Your task to perform on an android device: Go to display settings Image 0: 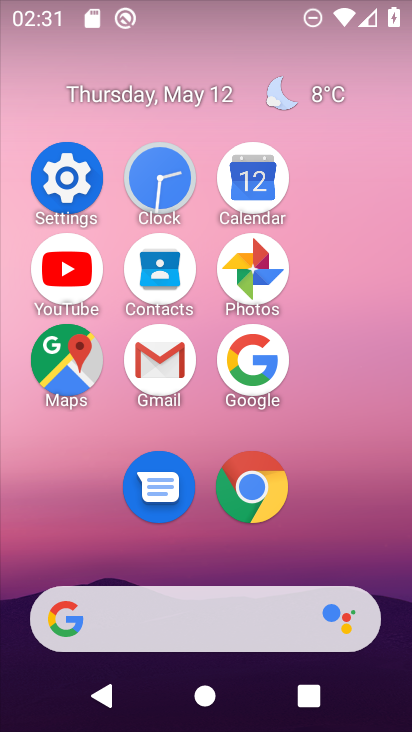
Step 0: click (68, 169)
Your task to perform on an android device: Go to display settings Image 1: 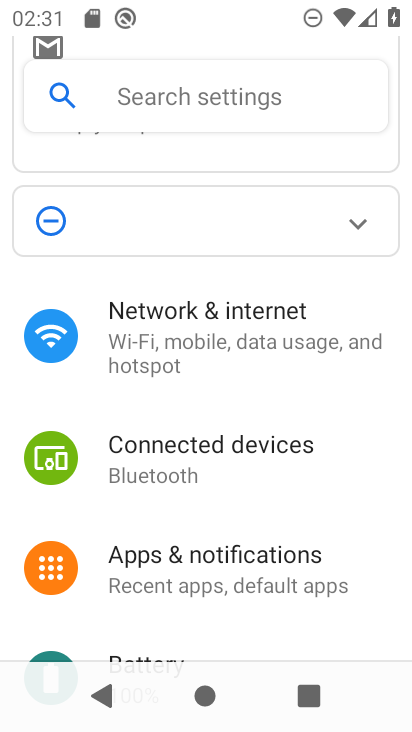
Step 1: drag from (208, 626) to (229, 245)
Your task to perform on an android device: Go to display settings Image 2: 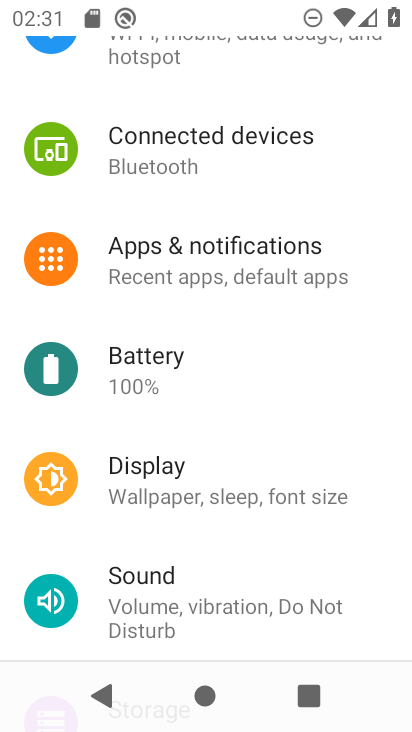
Step 2: click (213, 481)
Your task to perform on an android device: Go to display settings Image 3: 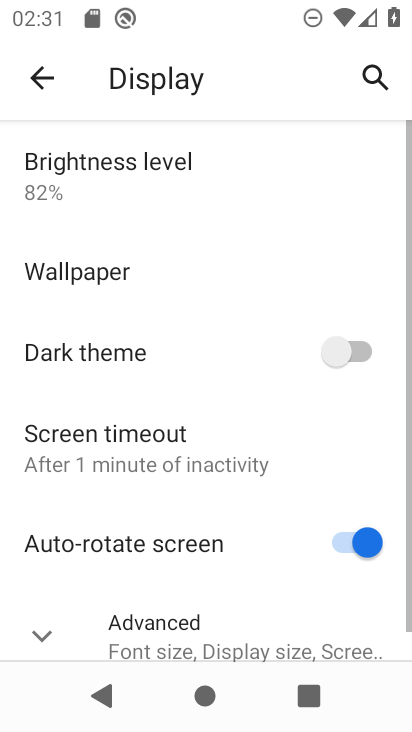
Step 3: task complete